Your task to perform on an android device: Show me the alarms in the clock app Image 0: 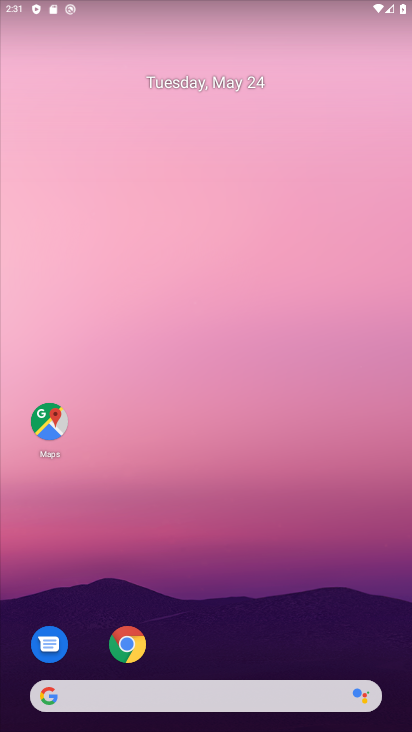
Step 0: drag from (239, 319) to (229, 146)
Your task to perform on an android device: Show me the alarms in the clock app Image 1: 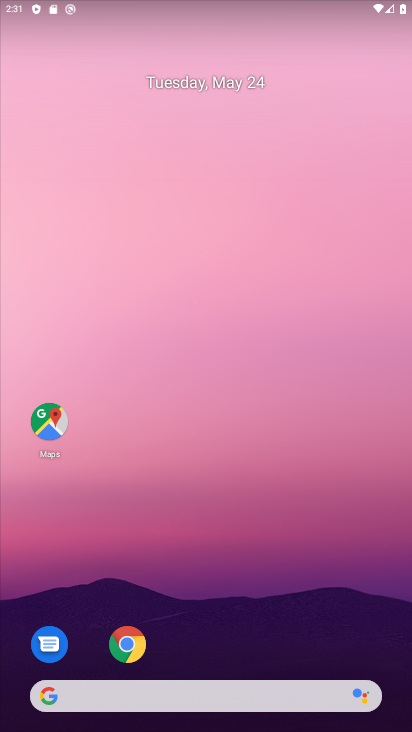
Step 1: drag from (249, 577) to (261, 13)
Your task to perform on an android device: Show me the alarms in the clock app Image 2: 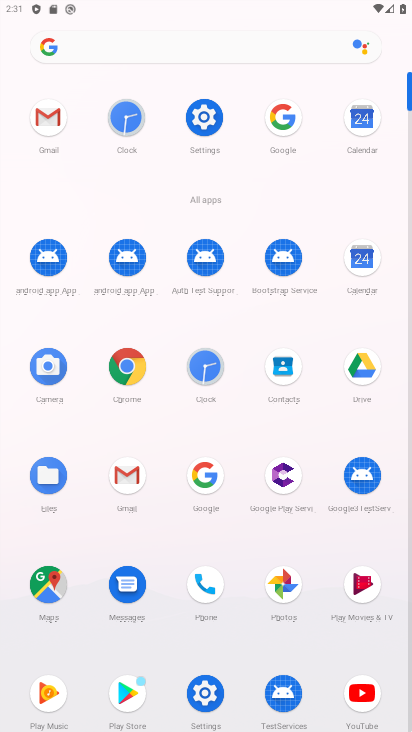
Step 2: click (200, 370)
Your task to perform on an android device: Show me the alarms in the clock app Image 3: 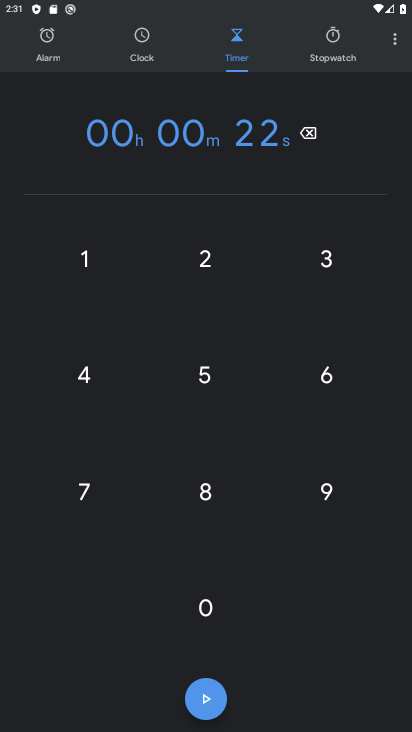
Step 3: click (384, 37)
Your task to perform on an android device: Show me the alarms in the clock app Image 4: 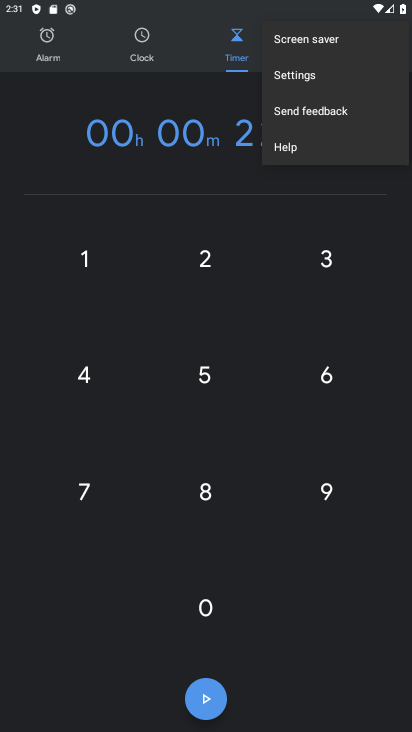
Step 4: click (306, 87)
Your task to perform on an android device: Show me the alarms in the clock app Image 5: 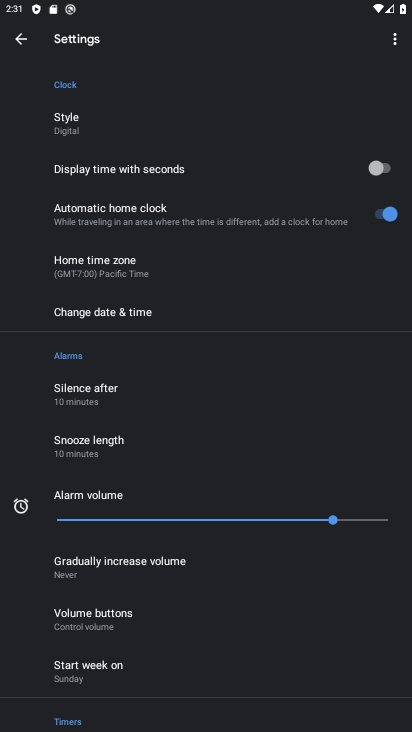
Step 5: press back button
Your task to perform on an android device: Show me the alarms in the clock app Image 6: 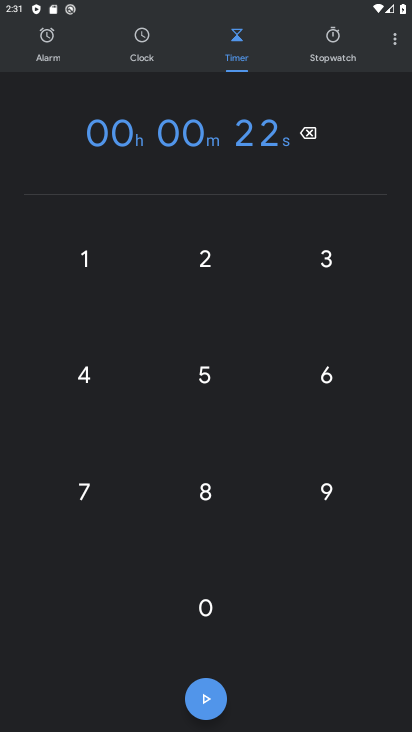
Step 6: click (33, 48)
Your task to perform on an android device: Show me the alarms in the clock app Image 7: 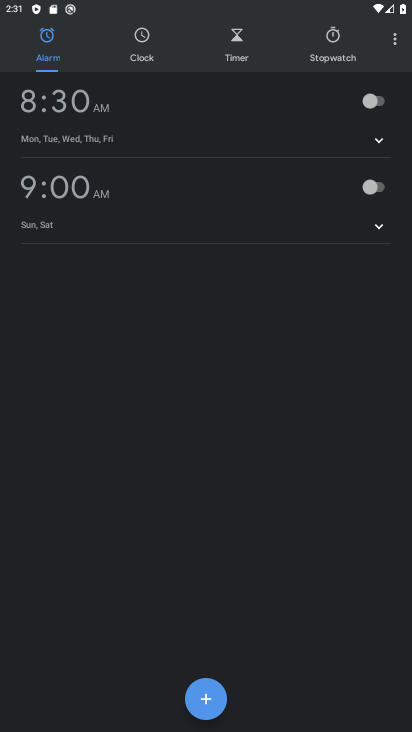
Step 7: task complete